Your task to perform on an android device: check the backup settings in the google photos Image 0: 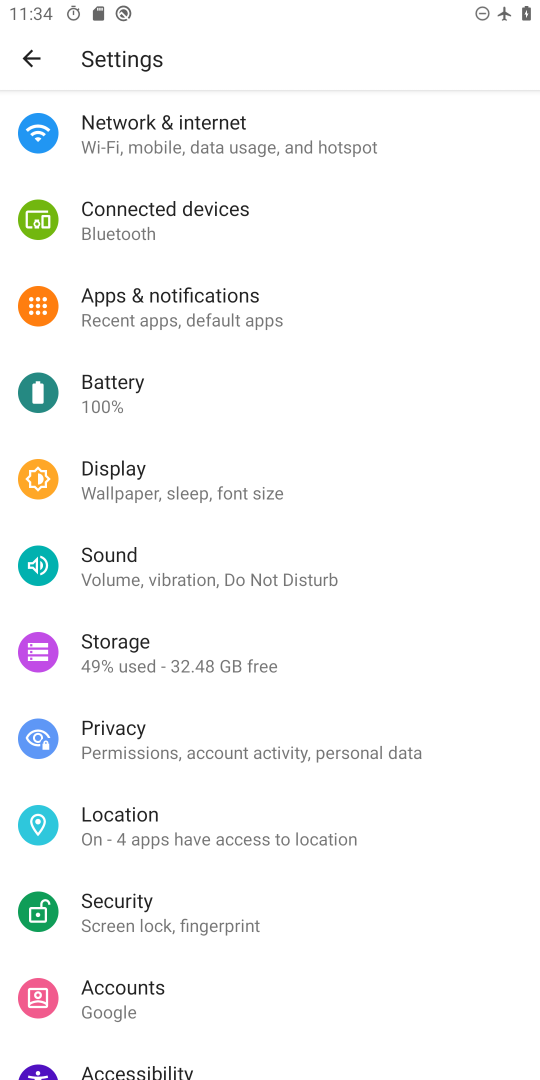
Step 0: press home button
Your task to perform on an android device: check the backup settings in the google photos Image 1: 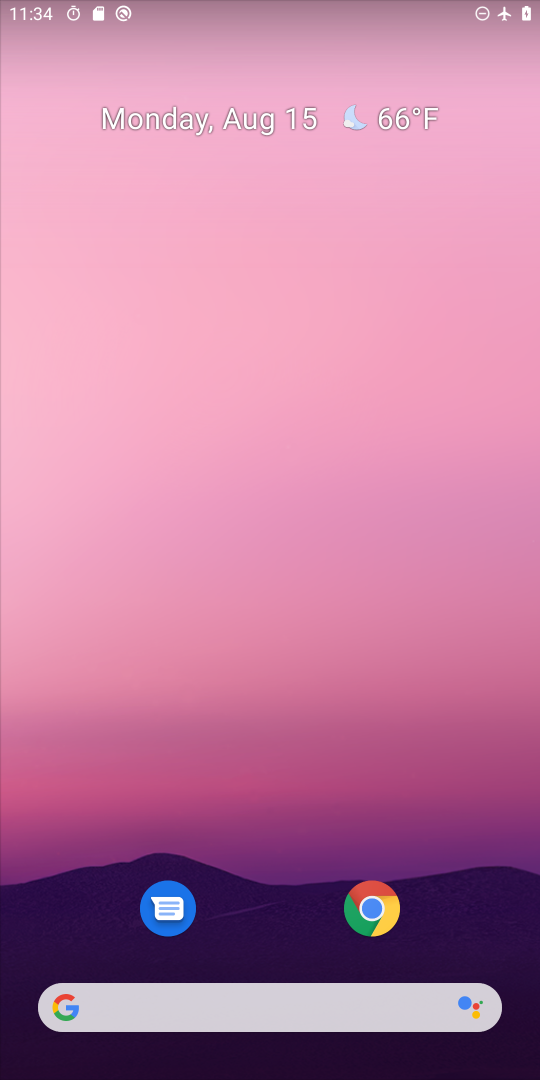
Step 1: drag from (260, 905) to (193, 151)
Your task to perform on an android device: check the backup settings in the google photos Image 2: 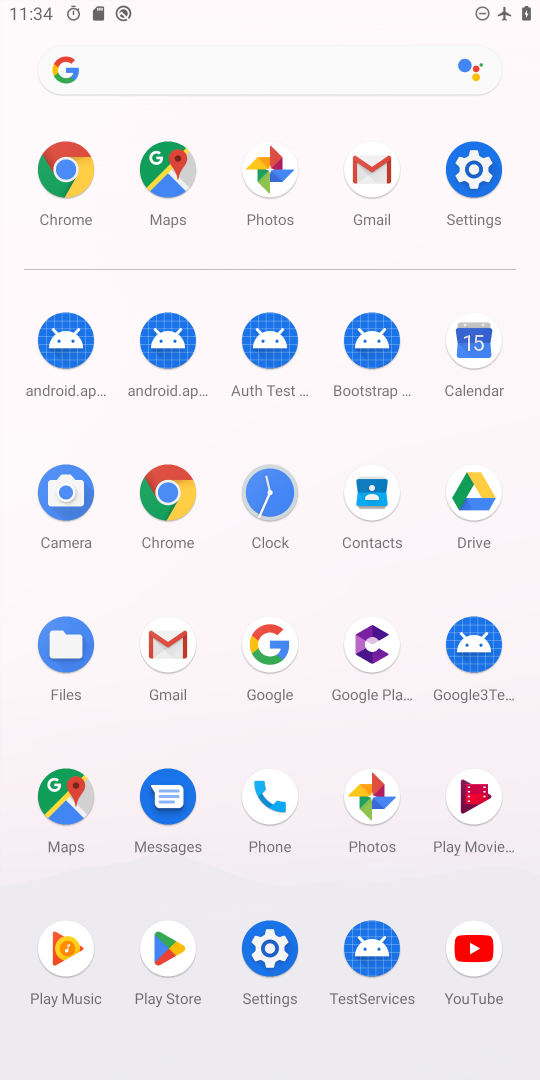
Step 2: click (255, 165)
Your task to perform on an android device: check the backup settings in the google photos Image 3: 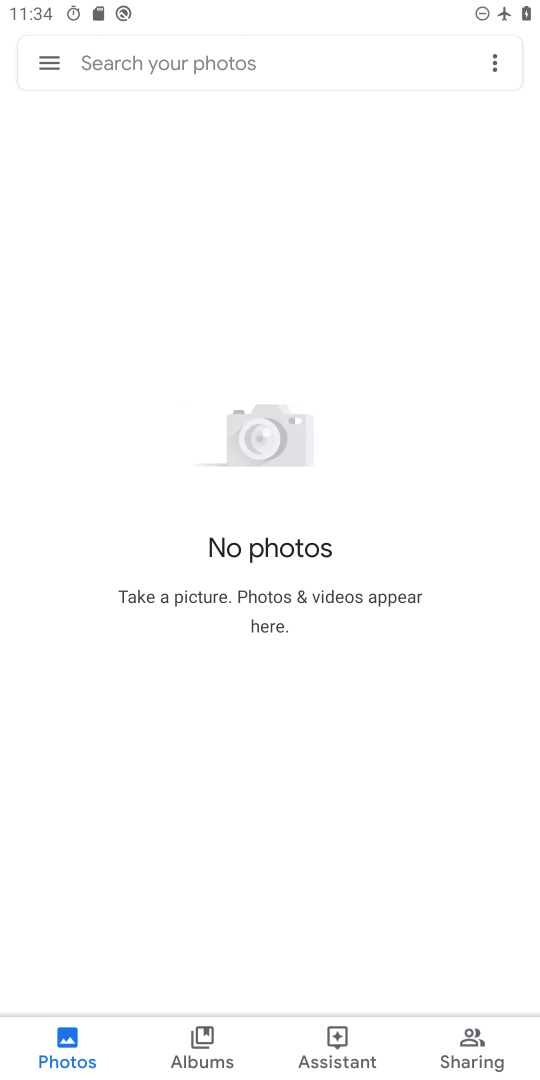
Step 3: click (46, 56)
Your task to perform on an android device: check the backup settings in the google photos Image 4: 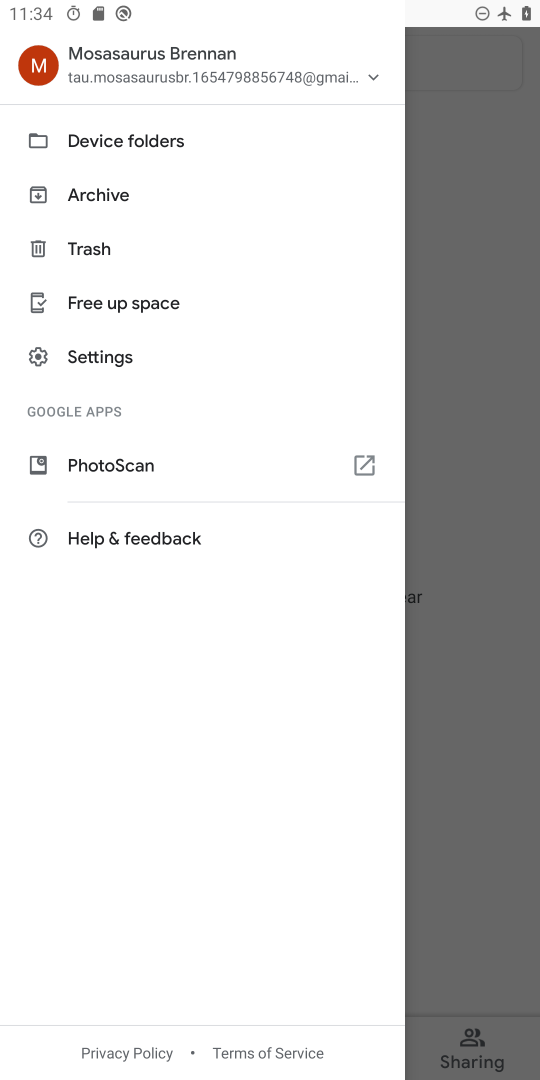
Step 4: click (159, 354)
Your task to perform on an android device: check the backup settings in the google photos Image 5: 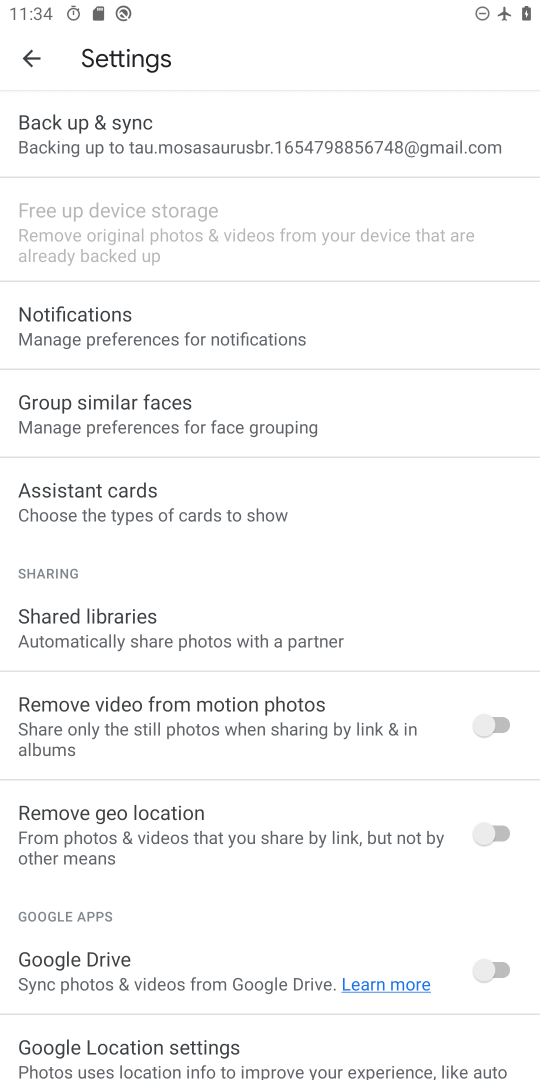
Step 5: click (103, 154)
Your task to perform on an android device: check the backup settings in the google photos Image 6: 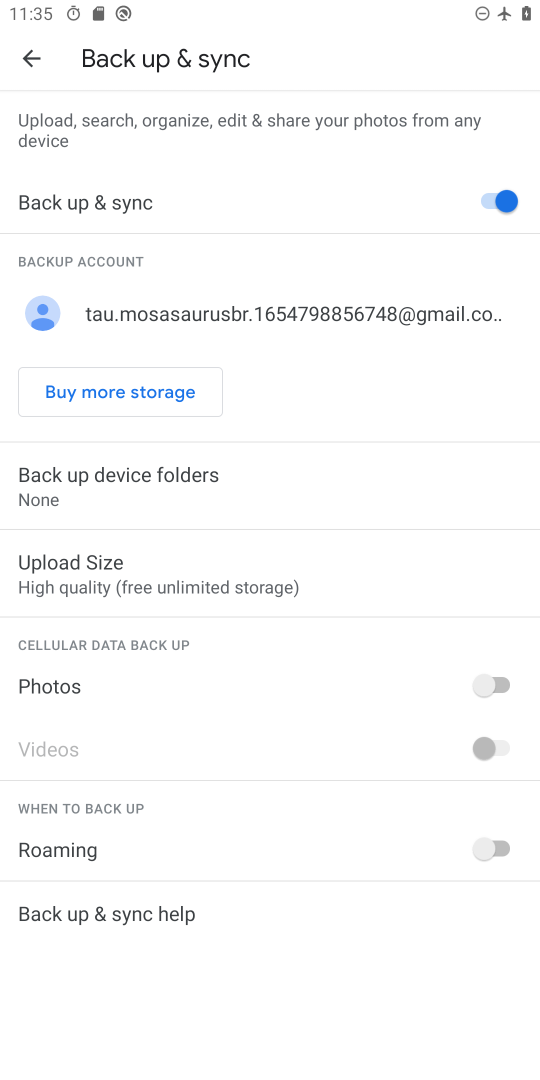
Step 6: task complete